Your task to perform on an android device: Search for seafood restaurants on Google Maps Image 0: 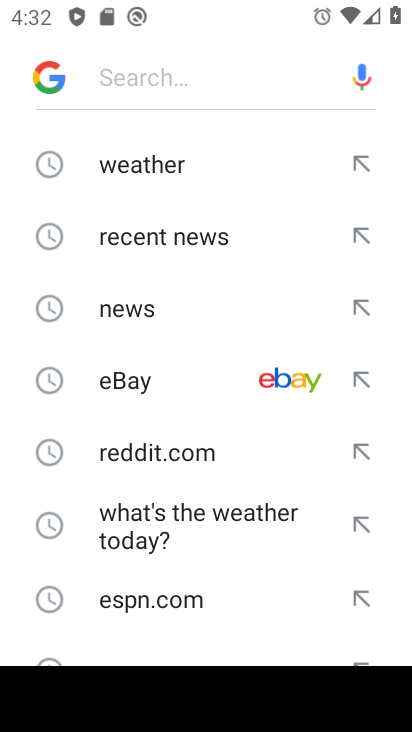
Step 0: press home button
Your task to perform on an android device: Search for seafood restaurants on Google Maps Image 1: 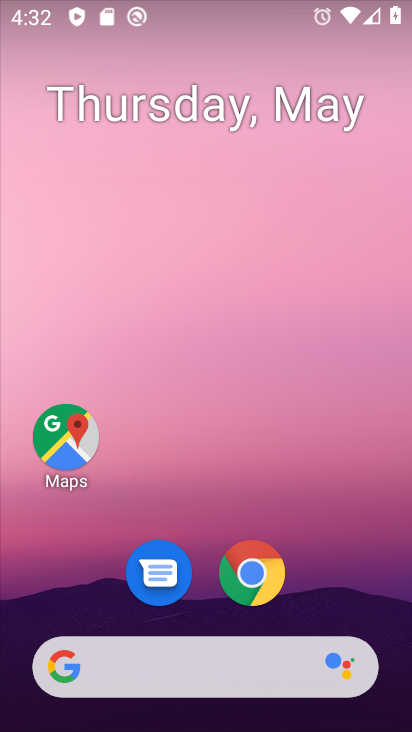
Step 1: click (72, 454)
Your task to perform on an android device: Search for seafood restaurants on Google Maps Image 2: 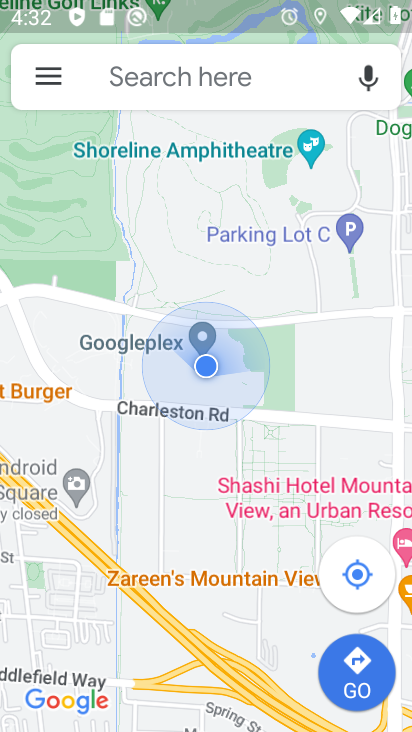
Step 2: click (193, 83)
Your task to perform on an android device: Search for seafood restaurants on Google Maps Image 3: 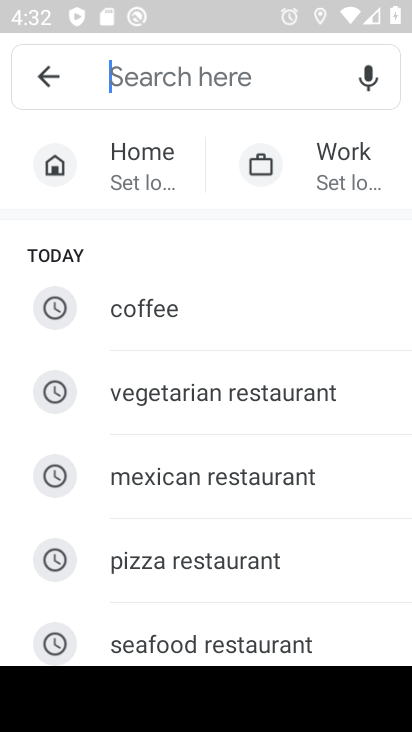
Step 3: click (188, 644)
Your task to perform on an android device: Search for seafood restaurants on Google Maps Image 4: 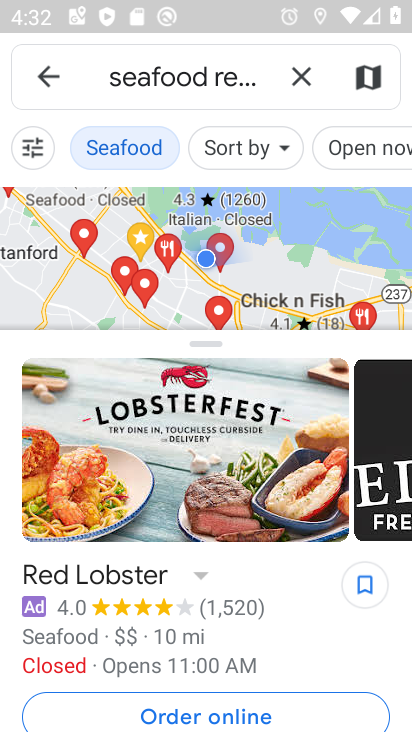
Step 4: task complete